Your task to perform on an android device: turn on sleep mode Image 0: 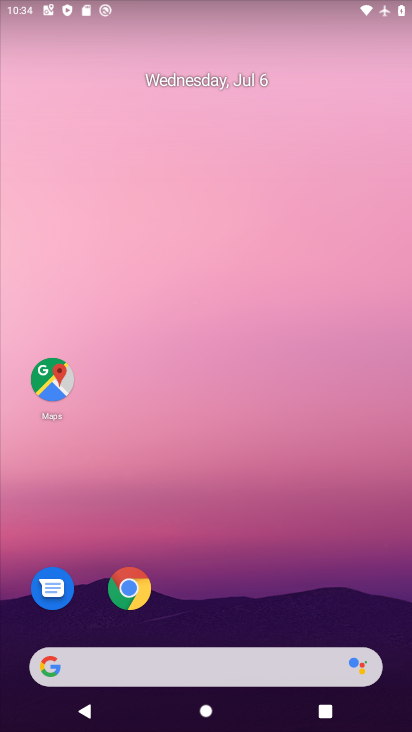
Step 0: drag from (234, 618) to (223, 371)
Your task to perform on an android device: turn on sleep mode Image 1: 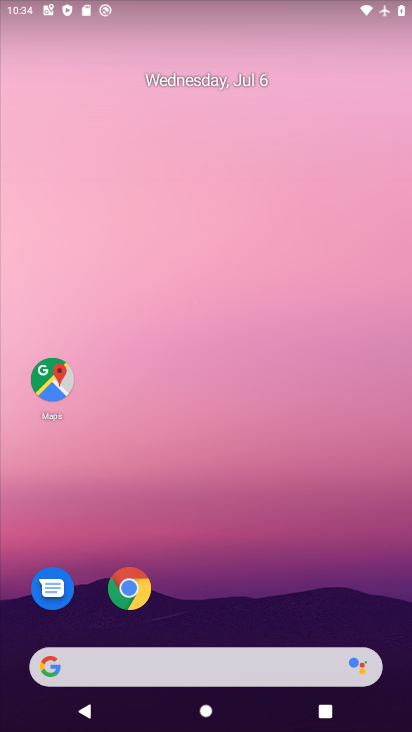
Step 1: drag from (258, 609) to (298, 140)
Your task to perform on an android device: turn on sleep mode Image 2: 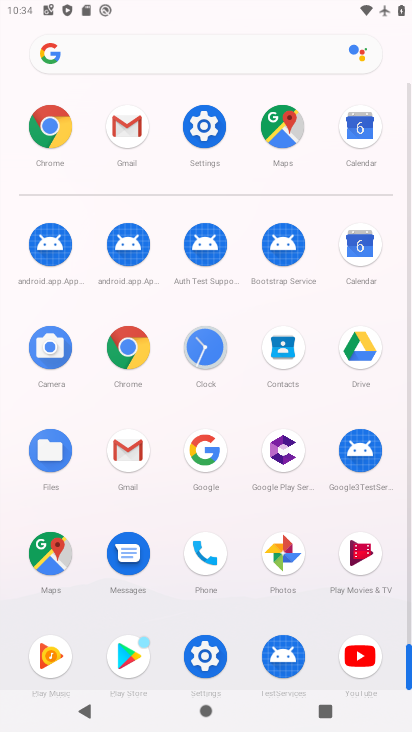
Step 2: click (217, 114)
Your task to perform on an android device: turn on sleep mode Image 3: 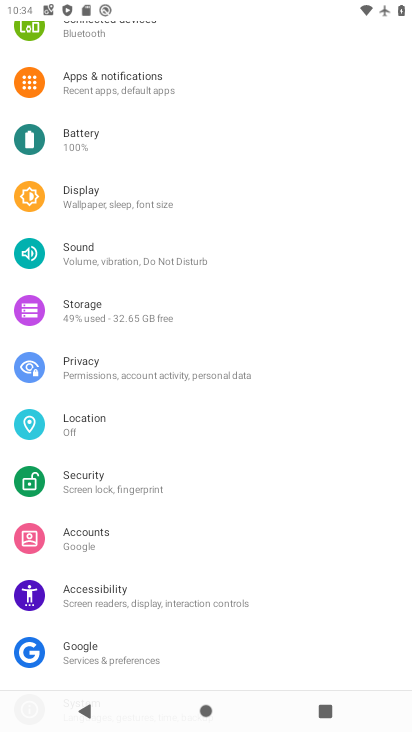
Step 3: task complete